Your task to perform on an android device: How much does a 3 bedroom apartment rent for in Dallas? Image 0: 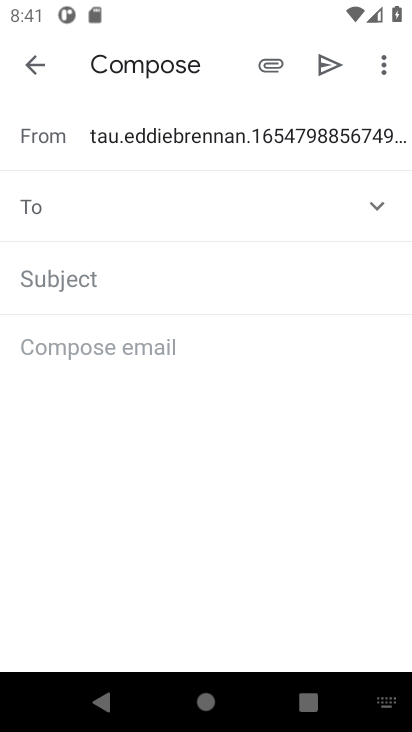
Step 0: press home button
Your task to perform on an android device: How much does a 3 bedroom apartment rent for in Dallas? Image 1: 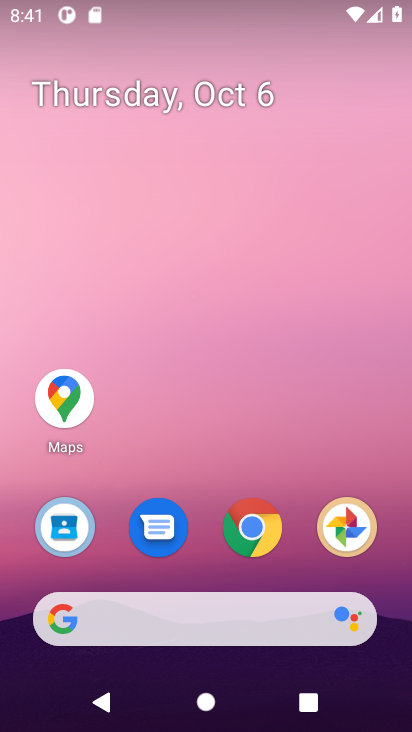
Step 1: click (239, 524)
Your task to perform on an android device: How much does a 3 bedroom apartment rent for in Dallas? Image 2: 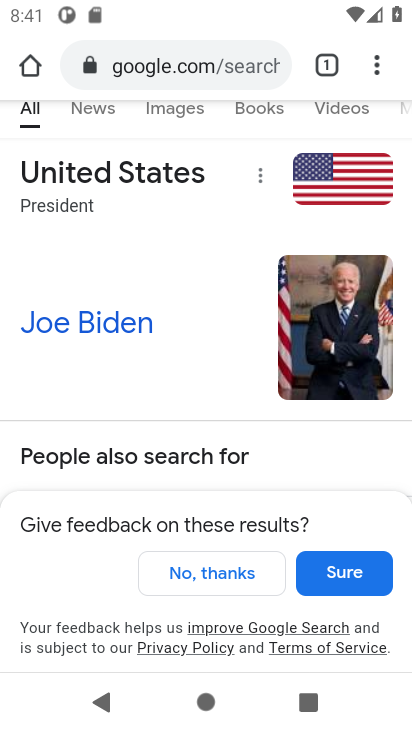
Step 2: click (181, 63)
Your task to perform on an android device: How much does a 3 bedroom apartment rent for in Dallas? Image 3: 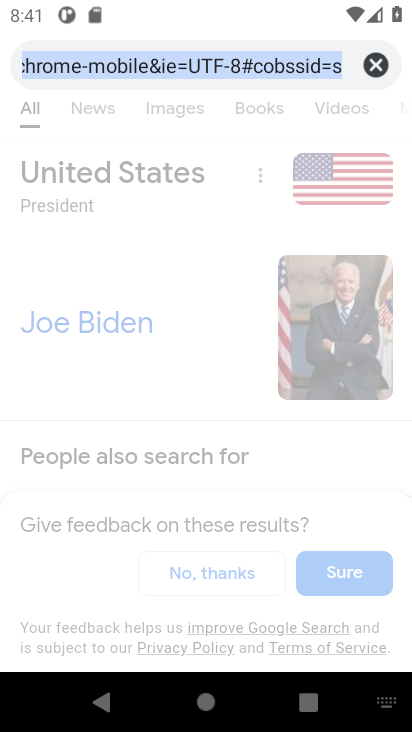
Step 3: type "How much does a 3 bedroom apartment rent for in Dallas?"
Your task to perform on an android device: How much does a 3 bedroom apartment rent for in Dallas? Image 4: 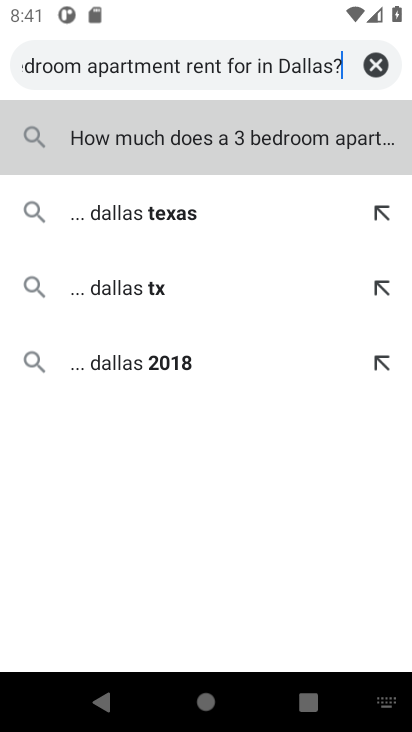
Step 4: click (262, 141)
Your task to perform on an android device: How much does a 3 bedroom apartment rent for in Dallas? Image 5: 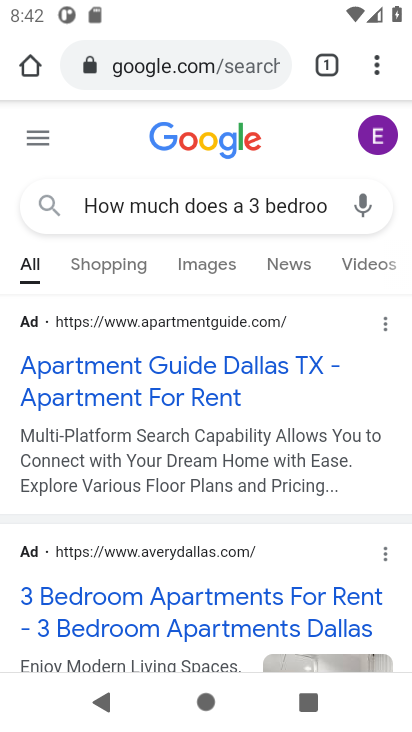
Step 5: click (186, 609)
Your task to perform on an android device: How much does a 3 bedroom apartment rent for in Dallas? Image 6: 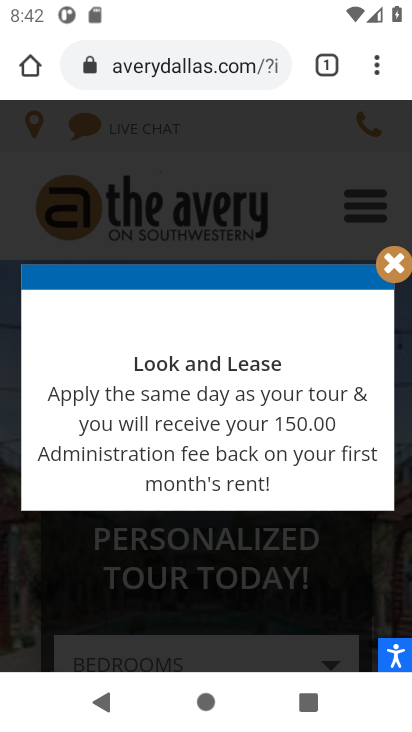
Step 6: click (393, 261)
Your task to perform on an android device: How much does a 3 bedroom apartment rent for in Dallas? Image 7: 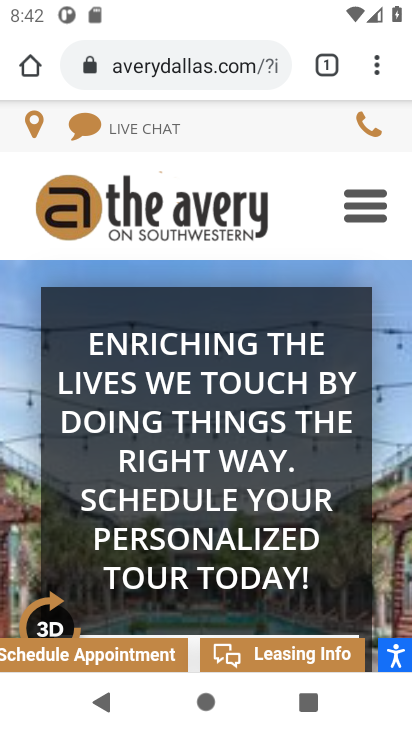
Step 7: task complete